Your task to perform on an android device: Add "usb-a to usb-b" to the cart on costco.com, then select checkout. Image 0: 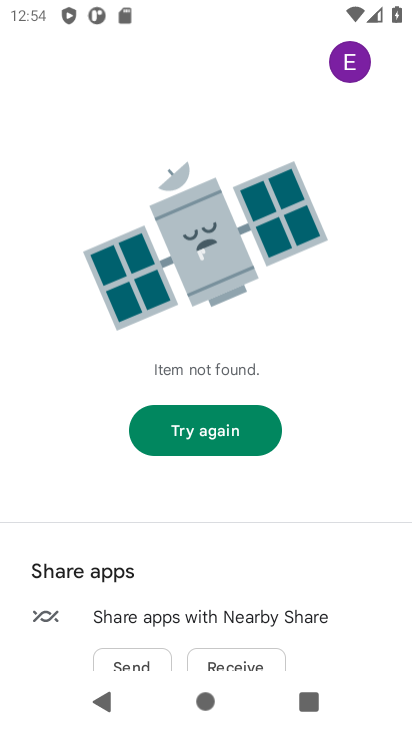
Step 0: press home button
Your task to perform on an android device: Add "usb-a to usb-b" to the cart on costco.com, then select checkout. Image 1: 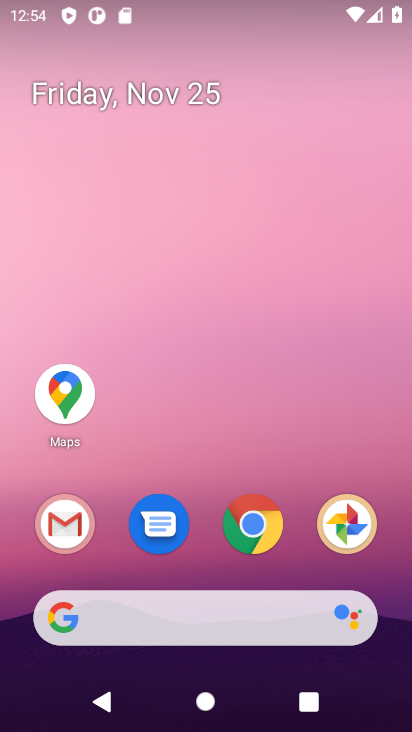
Step 1: click (248, 523)
Your task to perform on an android device: Add "usb-a to usb-b" to the cart on costco.com, then select checkout. Image 2: 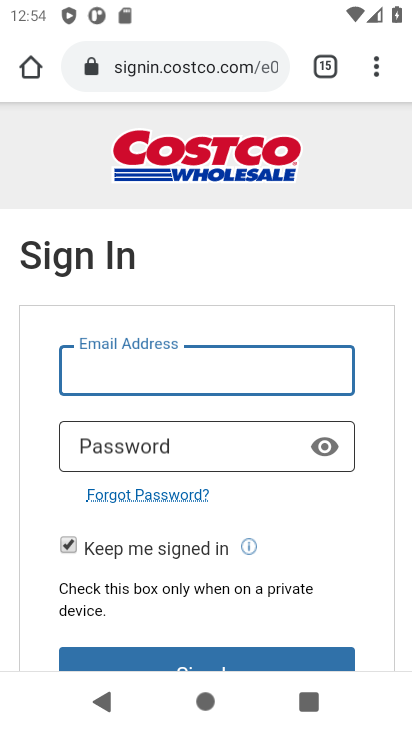
Step 2: drag from (270, 231) to (285, 415)
Your task to perform on an android device: Add "usb-a to usb-b" to the cart on costco.com, then select checkout. Image 3: 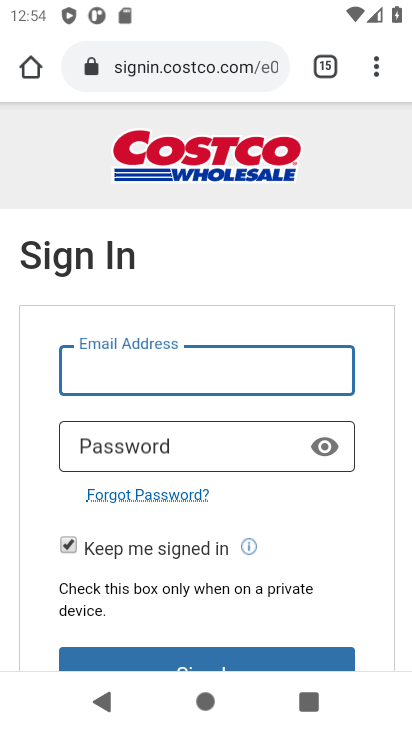
Step 3: press back button
Your task to perform on an android device: Add "usb-a to usb-b" to the cart on costco.com, then select checkout. Image 4: 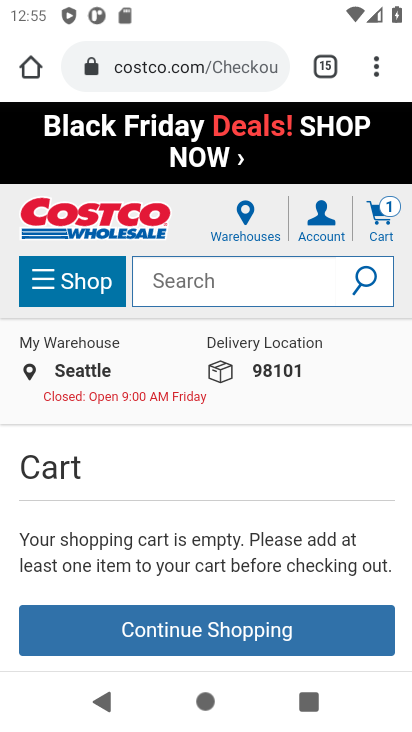
Step 4: click (194, 289)
Your task to perform on an android device: Add "usb-a to usb-b" to the cart on costco.com, then select checkout. Image 5: 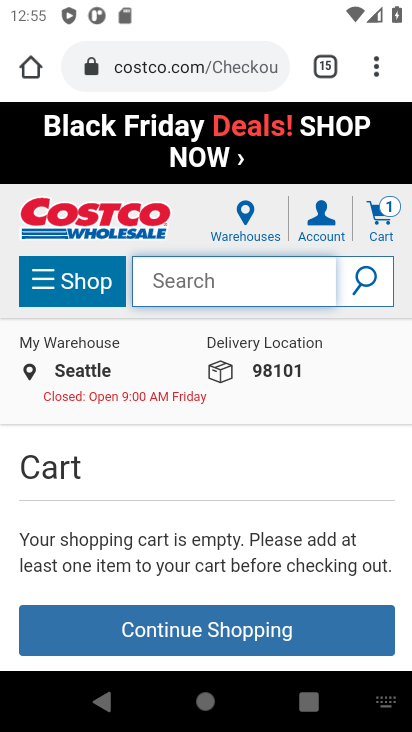
Step 5: type "usb-a to usb-b"
Your task to perform on an android device: Add "usb-a to usb-b" to the cart on costco.com, then select checkout. Image 6: 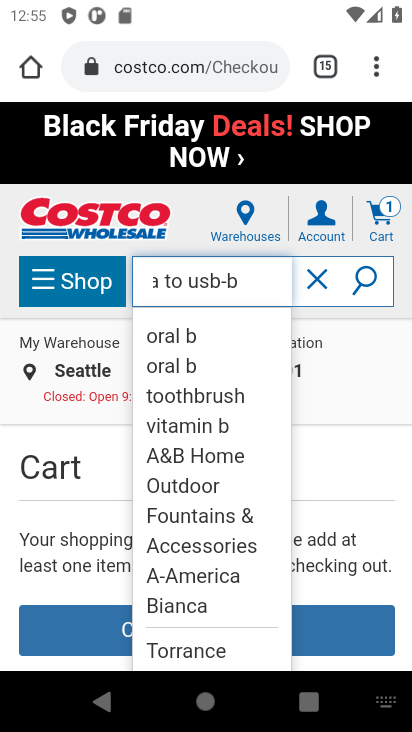
Step 6: click (371, 280)
Your task to perform on an android device: Add "usb-a to usb-b" to the cart on costco.com, then select checkout. Image 7: 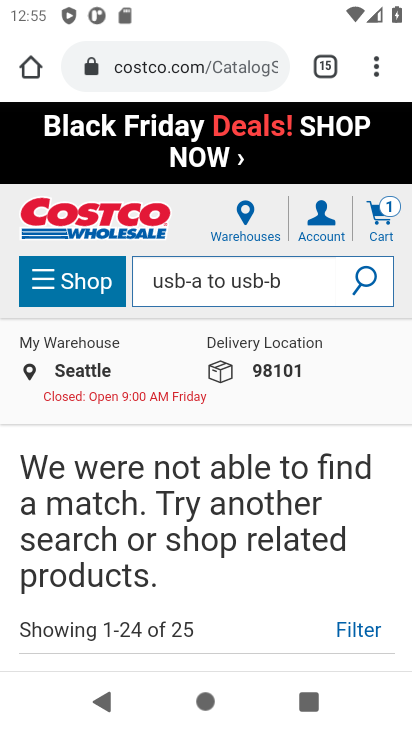
Step 7: task complete